Your task to perform on an android device: add a contact Image 0: 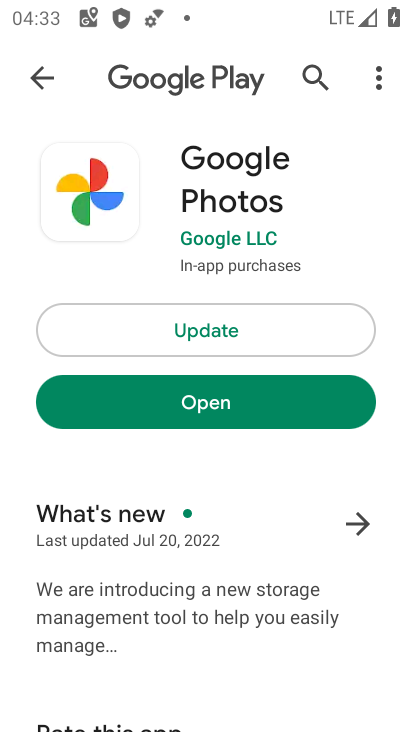
Step 0: press back button
Your task to perform on an android device: add a contact Image 1: 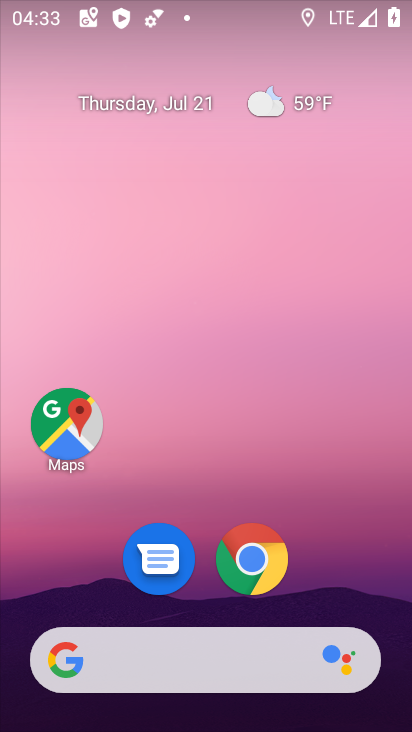
Step 1: drag from (151, 507) to (282, 10)
Your task to perform on an android device: add a contact Image 2: 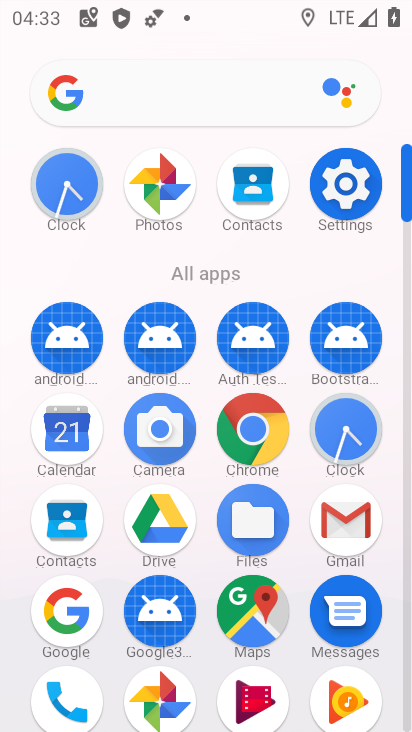
Step 2: click (71, 542)
Your task to perform on an android device: add a contact Image 3: 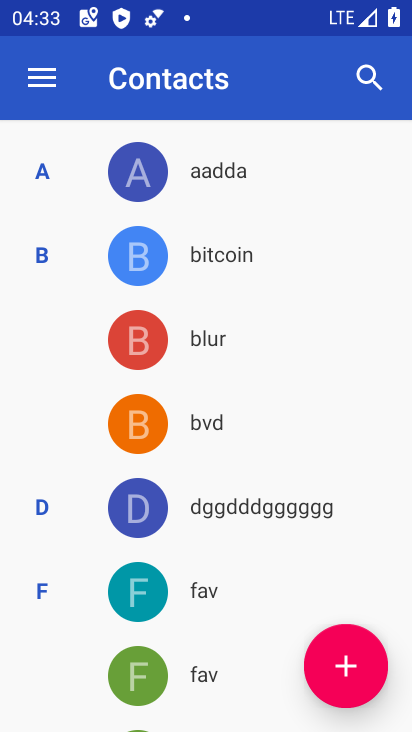
Step 3: click (356, 679)
Your task to perform on an android device: add a contact Image 4: 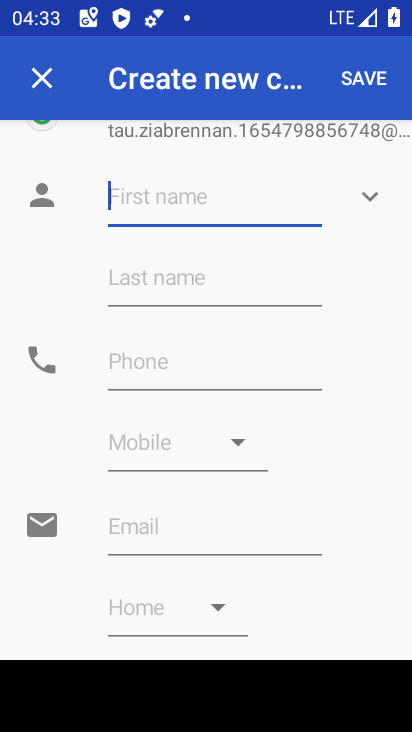
Step 4: click (153, 207)
Your task to perform on an android device: add a contact Image 5: 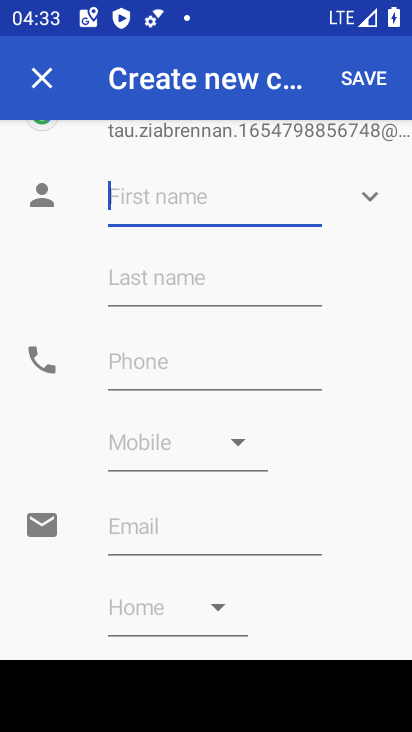
Step 5: type "ggghg"
Your task to perform on an android device: add a contact Image 6: 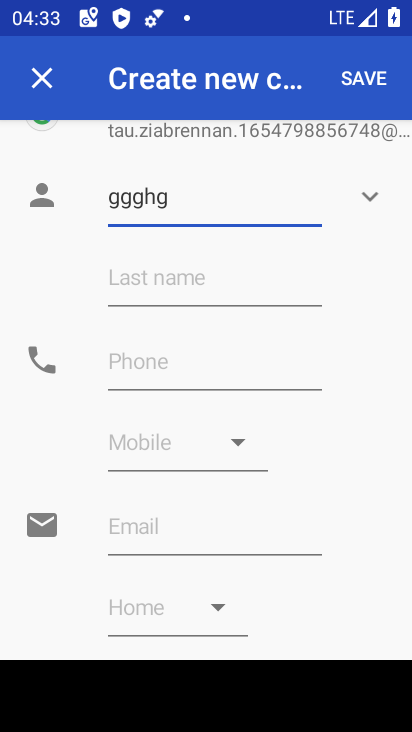
Step 6: click (180, 359)
Your task to perform on an android device: add a contact Image 7: 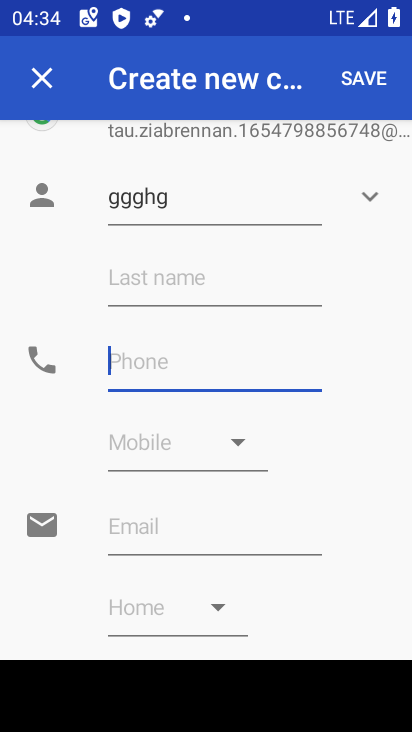
Step 7: type "7878"
Your task to perform on an android device: add a contact Image 8: 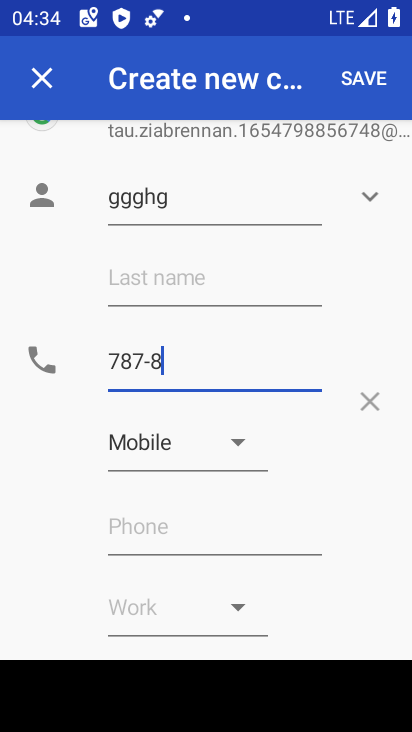
Step 8: click (352, 70)
Your task to perform on an android device: add a contact Image 9: 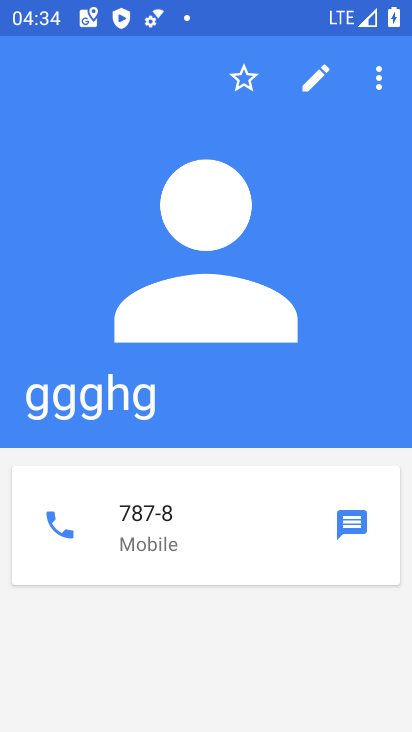
Step 9: task complete